Your task to perform on an android device: Open wifi settings Image 0: 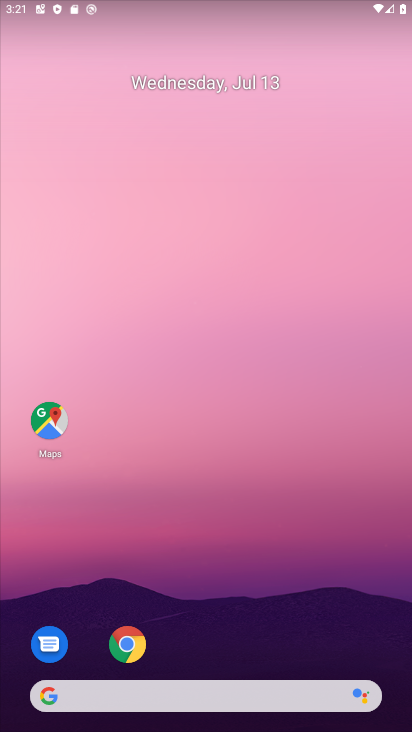
Step 0: drag from (228, 656) to (325, 173)
Your task to perform on an android device: Open wifi settings Image 1: 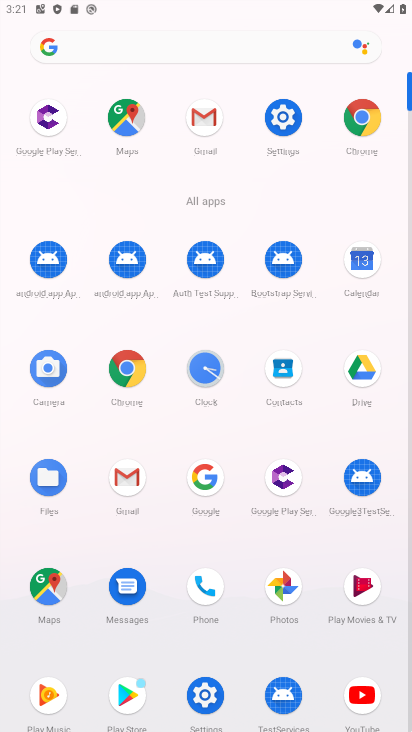
Step 1: click (209, 689)
Your task to perform on an android device: Open wifi settings Image 2: 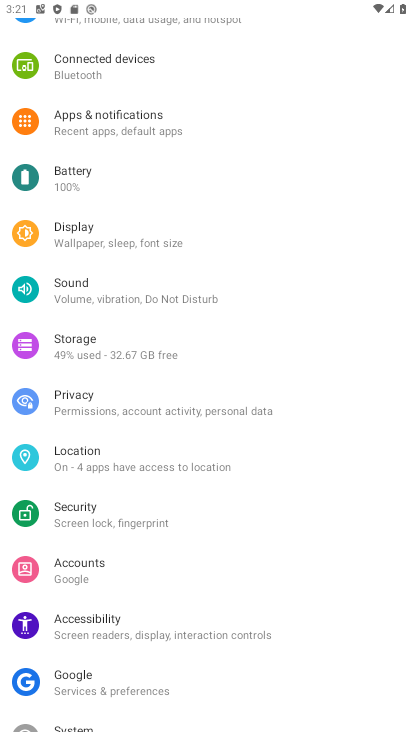
Step 2: drag from (177, 105) to (179, 544)
Your task to perform on an android device: Open wifi settings Image 3: 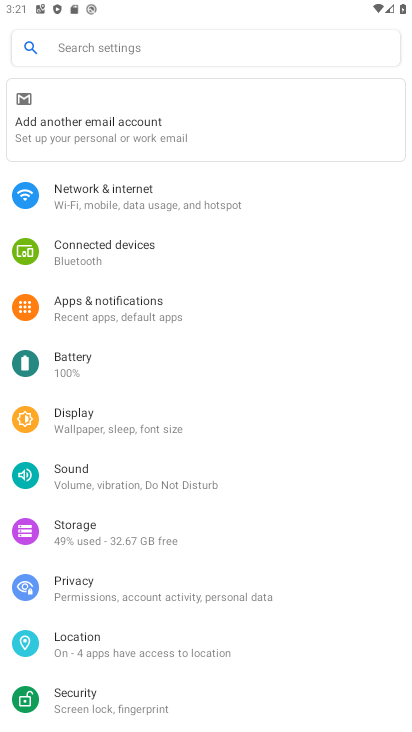
Step 3: click (188, 196)
Your task to perform on an android device: Open wifi settings Image 4: 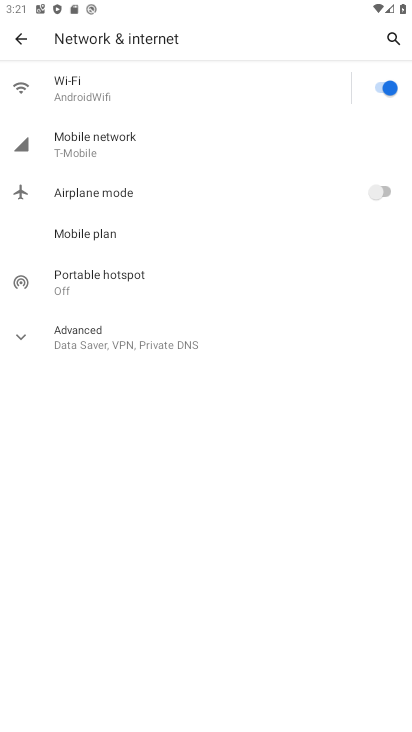
Step 4: click (168, 102)
Your task to perform on an android device: Open wifi settings Image 5: 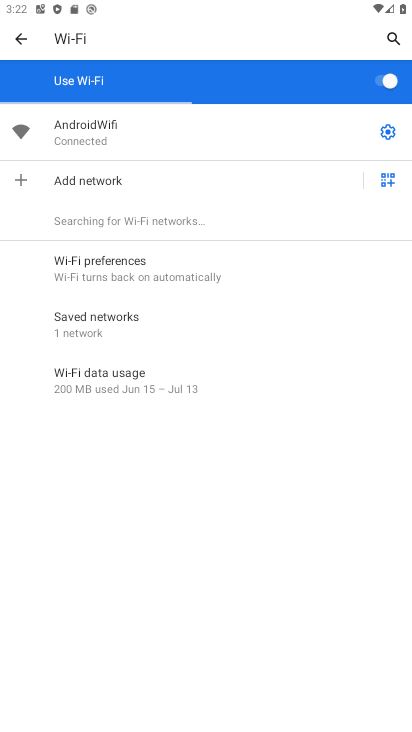
Step 5: task complete